Your task to perform on an android device: turn off smart reply in the gmail app Image 0: 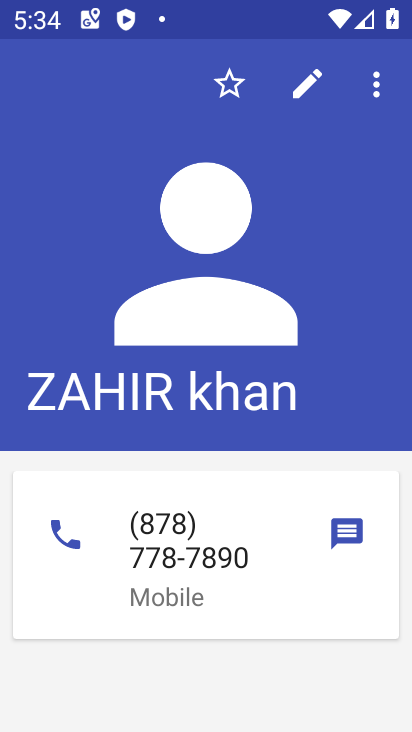
Step 0: press home button
Your task to perform on an android device: turn off smart reply in the gmail app Image 1: 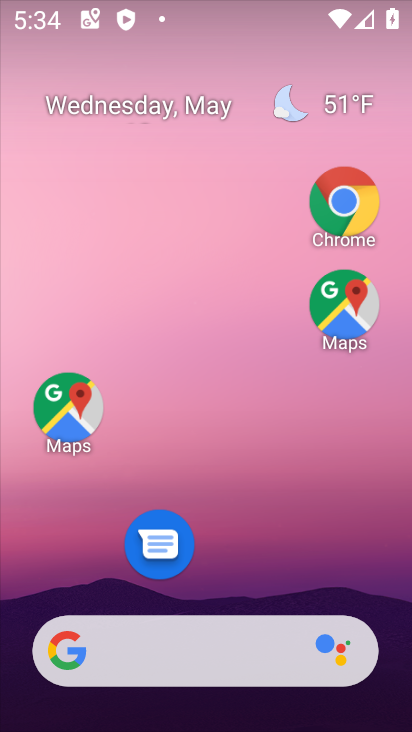
Step 1: drag from (269, 586) to (230, 103)
Your task to perform on an android device: turn off smart reply in the gmail app Image 2: 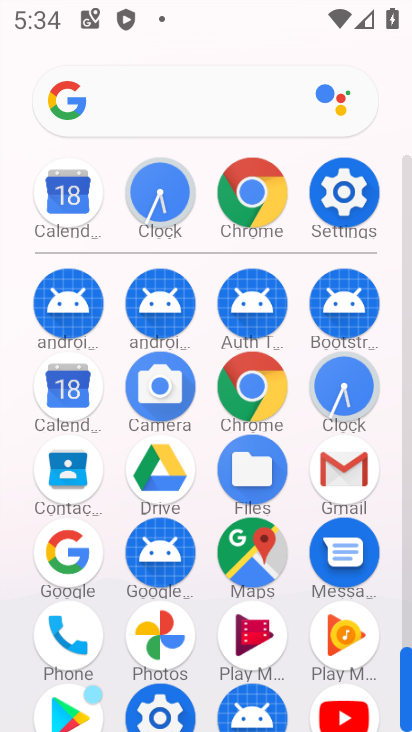
Step 2: click (360, 496)
Your task to perform on an android device: turn off smart reply in the gmail app Image 3: 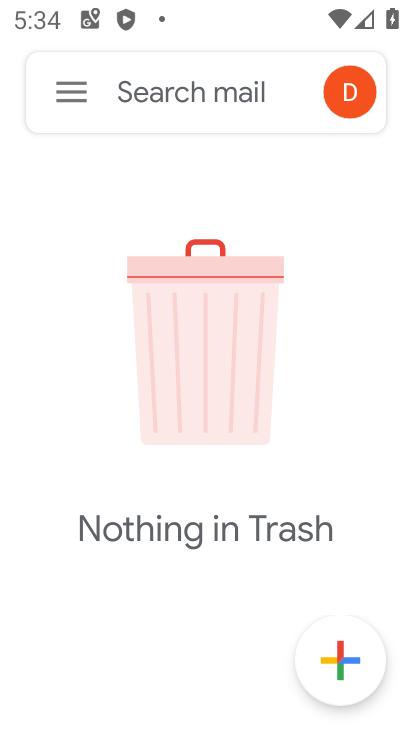
Step 3: click (90, 104)
Your task to perform on an android device: turn off smart reply in the gmail app Image 4: 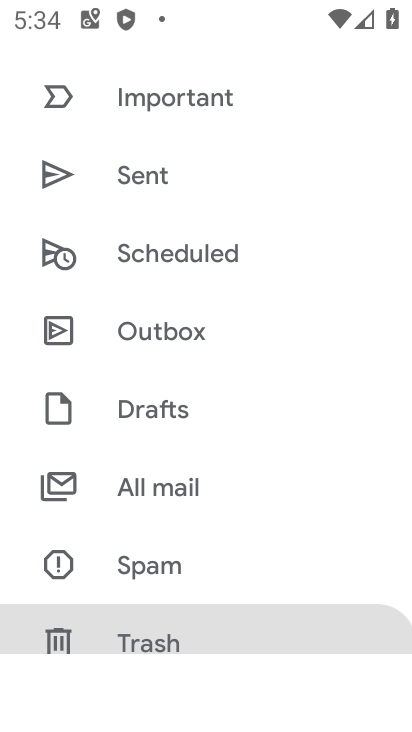
Step 4: drag from (164, 618) to (138, 178)
Your task to perform on an android device: turn off smart reply in the gmail app Image 5: 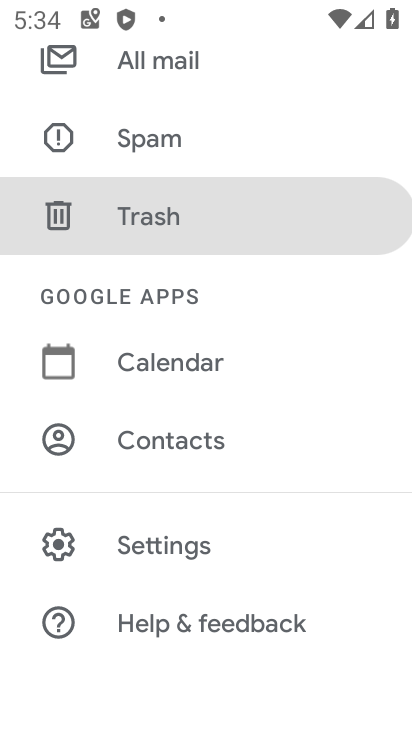
Step 5: click (170, 552)
Your task to perform on an android device: turn off smart reply in the gmail app Image 6: 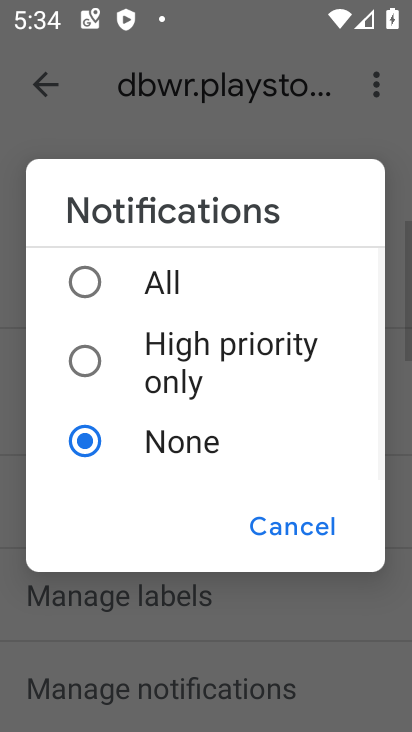
Step 6: click (320, 536)
Your task to perform on an android device: turn off smart reply in the gmail app Image 7: 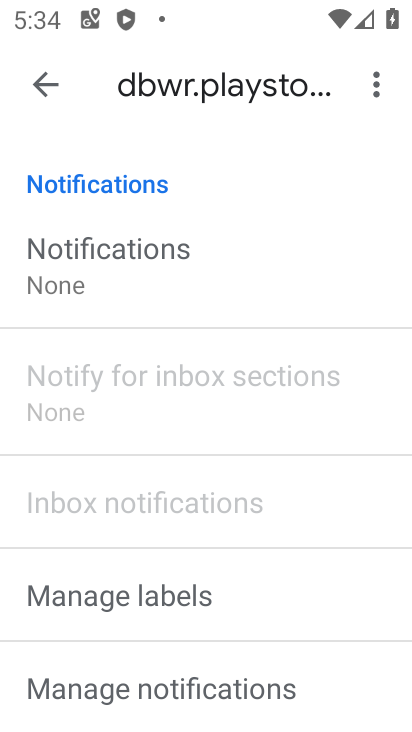
Step 7: click (196, 242)
Your task to perform on an android device: turn off smart reply in the gmail app Image 8: 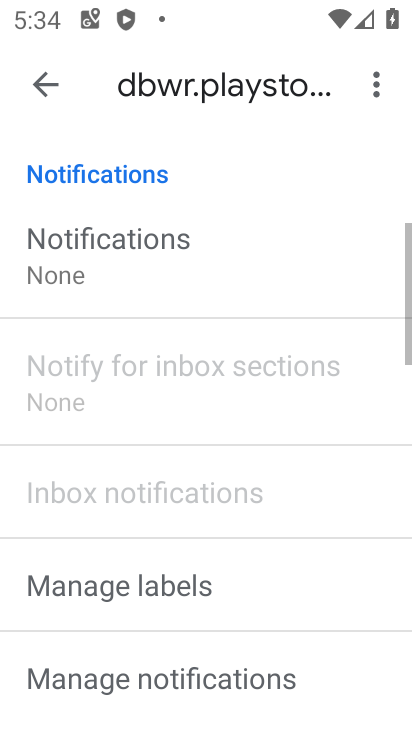
Step 8: drag from (181, 565) to (161, 74)
Your task to perform on an android device: turn off smart reply in the gmail app Image 9: 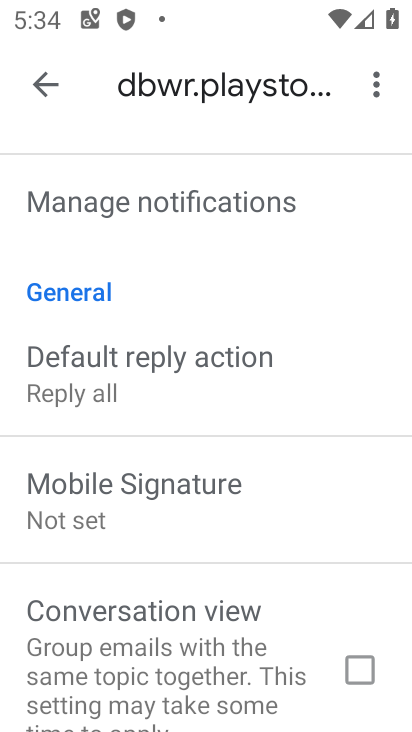
Step 9: drag from (248, 546) to (236, 178)
Your task to perform on an android device: turn off smart reply in the gmail app Image 10: 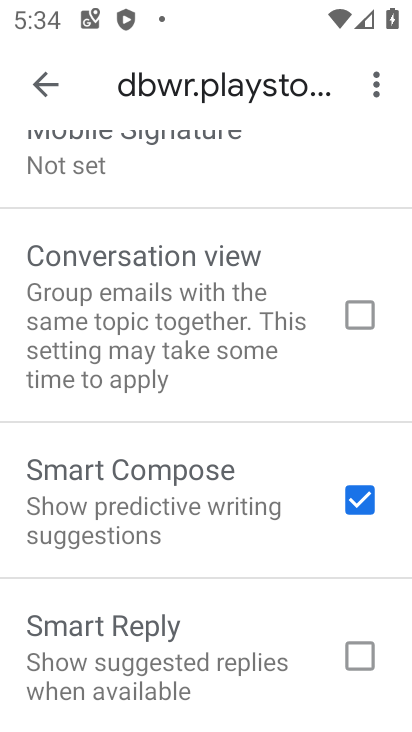
Step 10: click (359, 664)
Your task to perform on an android device: turn off smart reply in the gmail app Image 11: 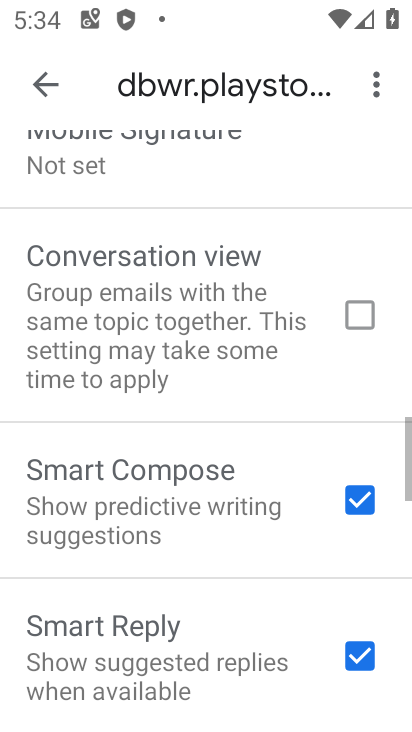
Step 11: click (359, 664)
Your task to perform on an android device: turn off smart reply in the gmail app Image 12: 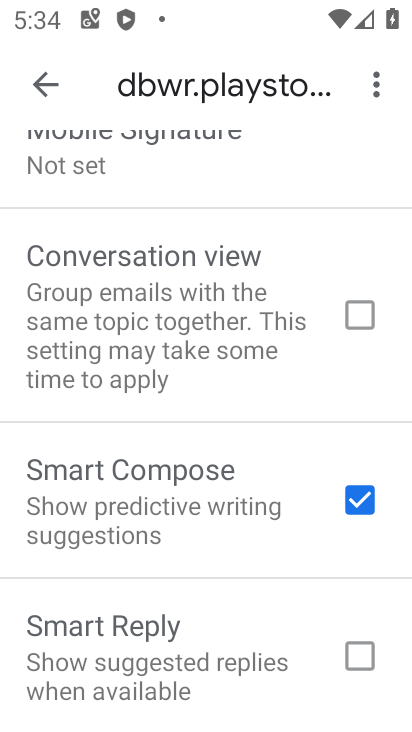
Step 12: task complete